Your task to perform on an android device: Open Youtube and go to the subscriptions tab Image 0: 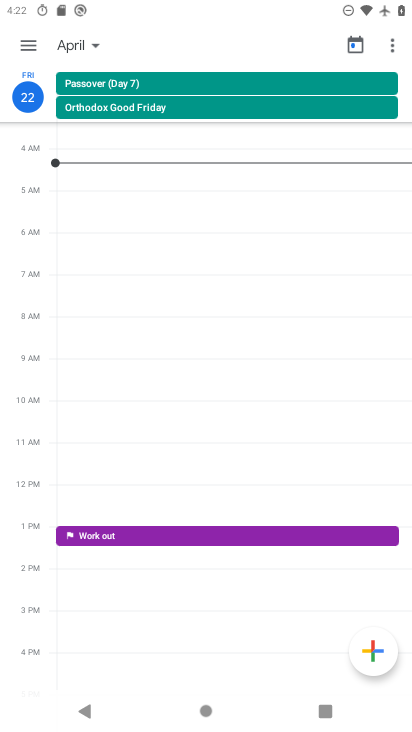
Step 0: press home button
Your task to perform on an android device: Open Youtube and go to the subscriptions tab Image 1: 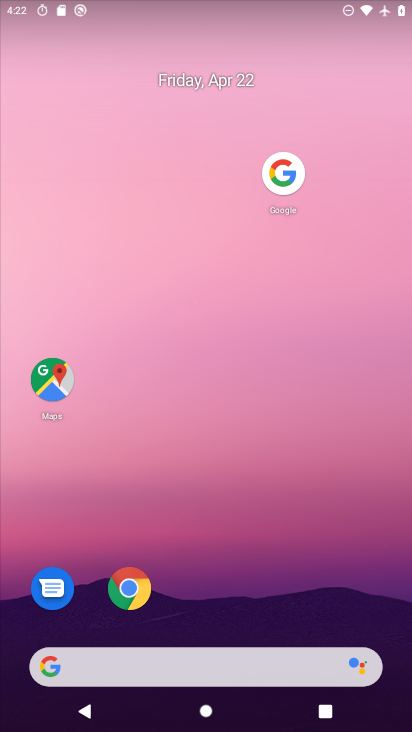
Step 1: drag from (184, 609) to (139, 17)
Your task to perform on an android device: Open Youtube and go to the subscriptions tab Image 2: 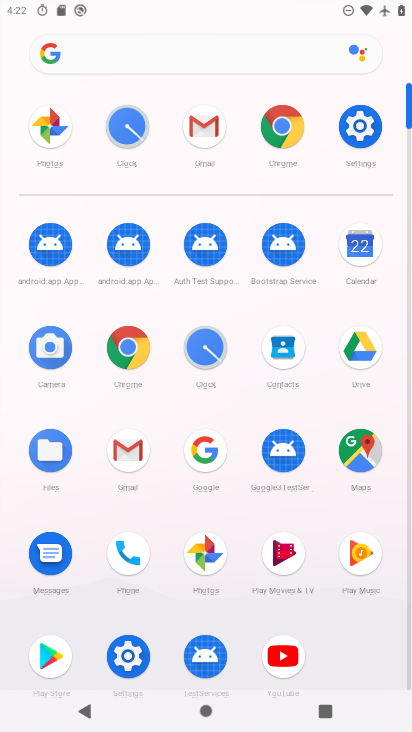
Step 2: click (290, 666)
Your task to perform on an android device: Open Youtube and go to the subscriptions tab Image 3: 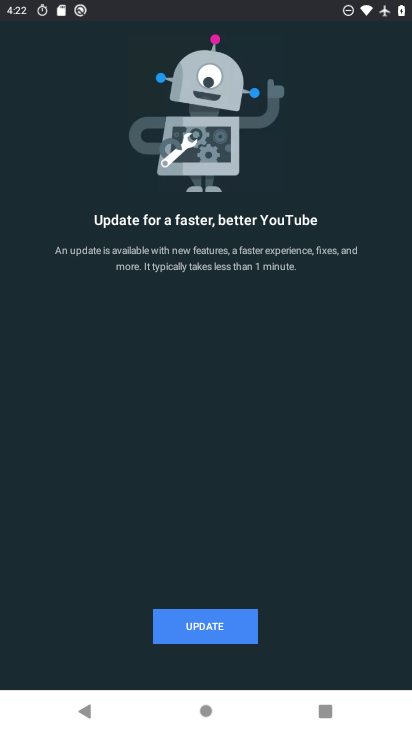
Step 3: click (214, 633)
Your task to perform on an android device: Open Youtube and go to the subscriptions tab Image 4: 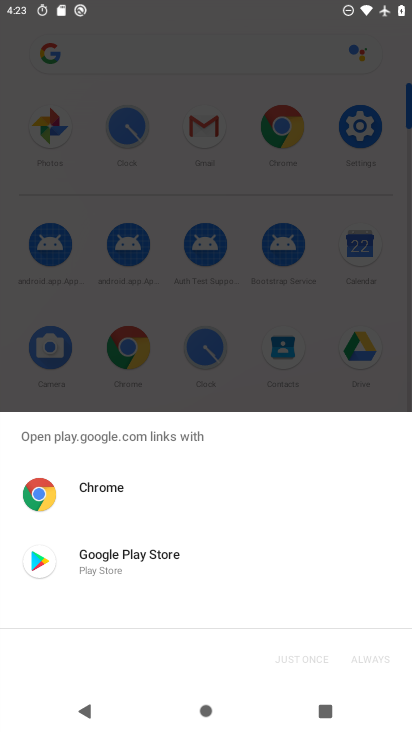
Step 4: click (164, 565)
Your task to perform on an android device: Open Youtube and go to the subscriptions tab Image 5: 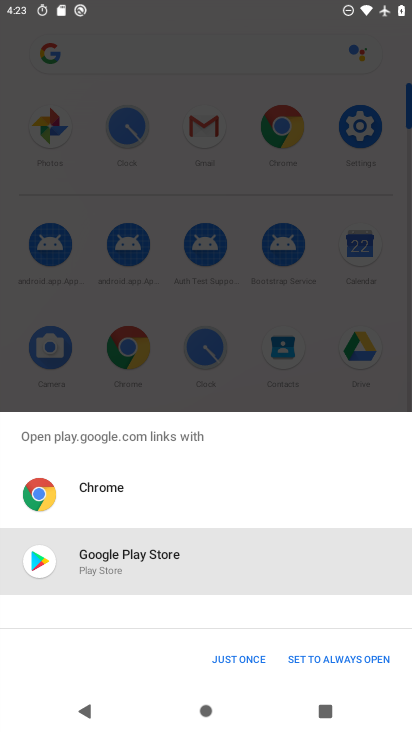
Step 5: click (284, 654)
Your task to perform on an android device: Open Youtube and go to the subscriptions tab Image 6: 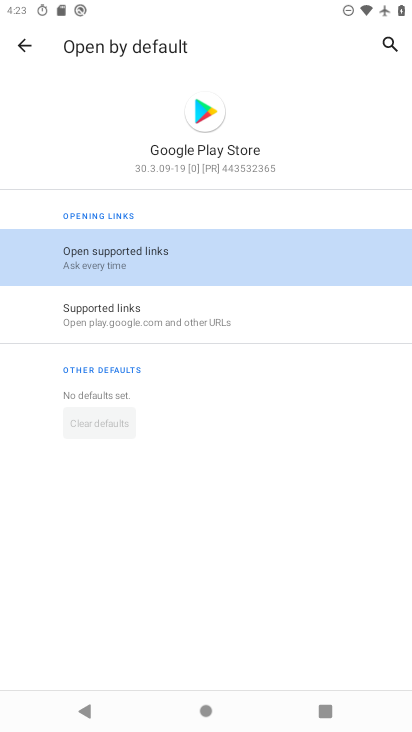
Step 6: task complete